Your task to perform on an android device: Open settings on Google Maps Image 0: 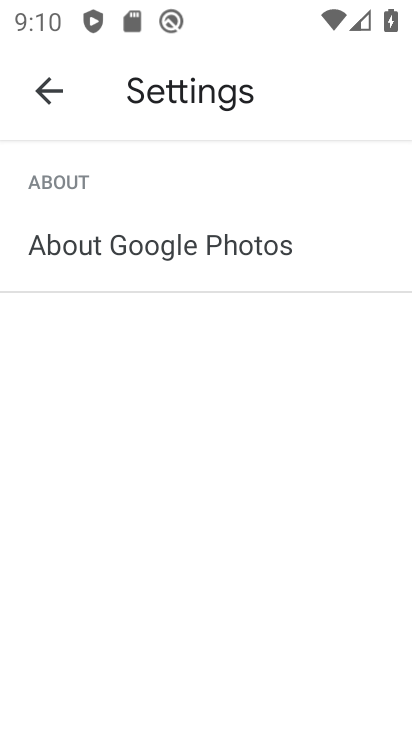
Step 0: press home button
Your task to perform on an android device: Open settings on Google Maps Image 1: 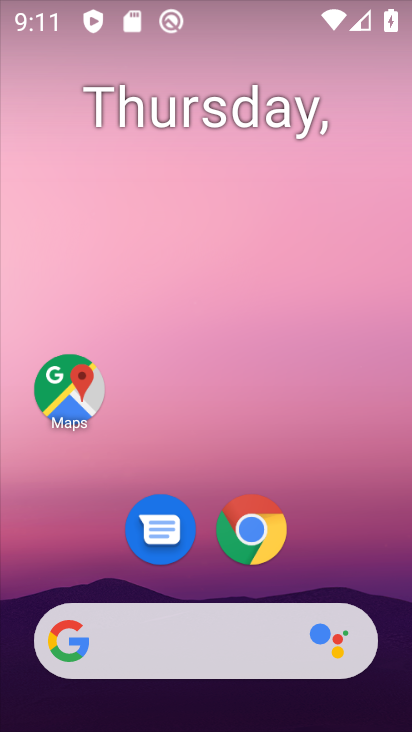
Step 1: click (66, 389)
Your task to perform on an android device: Open settings on Google Maps Image 2: 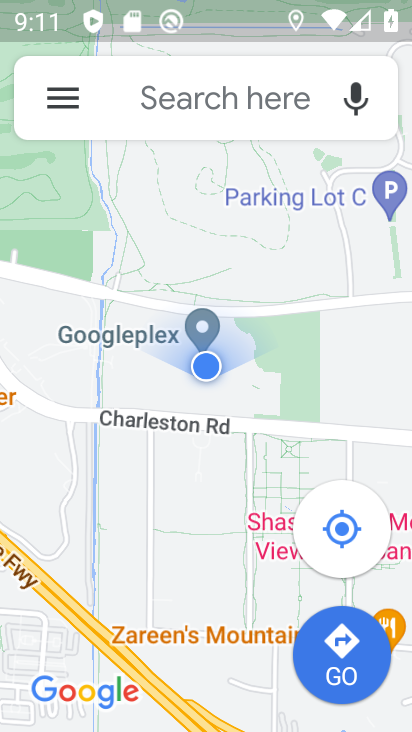
Step 2: click (68, 99)
Your task to perform on an android device: Open settings on Google Maps Image 3: 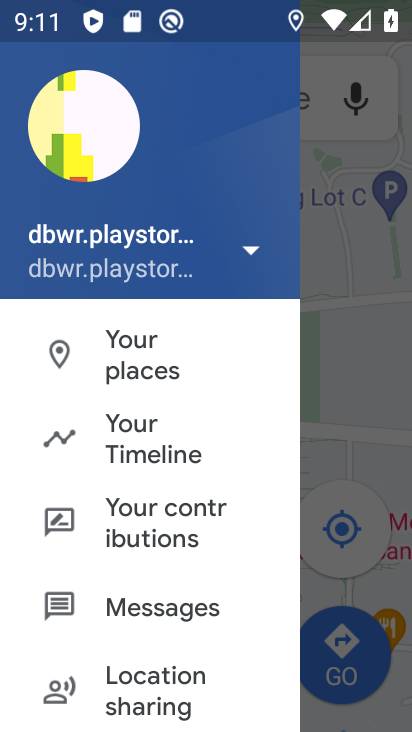
Step 3: drag from (136, 575) to (197, 482)
Your task to perform on an android device: Open settings on Google Maps Image 4: 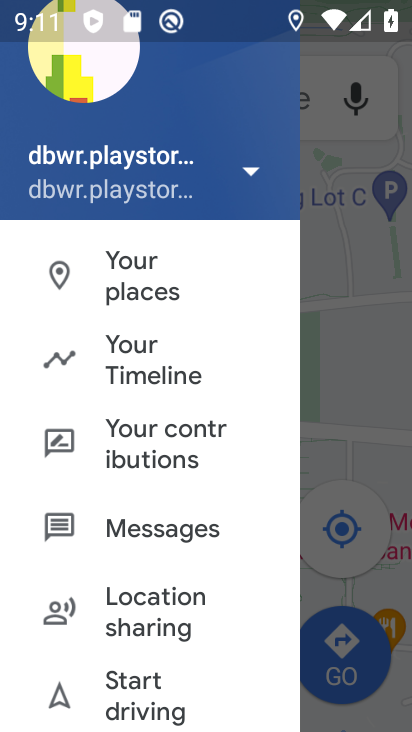
Step 4: drag from (128, 560) to (186, 476)
Your task to perform on an android device: Open settings on Google Maps Image 5: 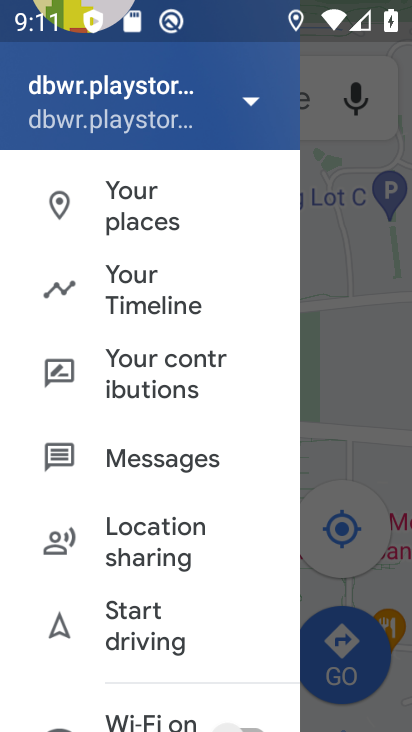
Step 5: drag from (127, 577) to (181, 490)
Your task to perform on an android device: Open settings on Google Maps Image 6: 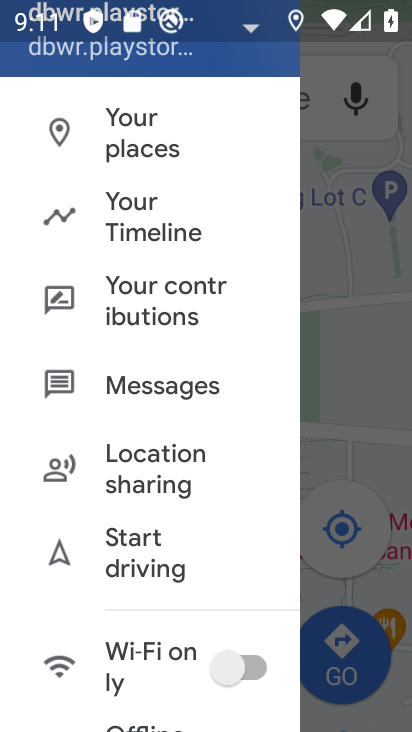
Step 6: drag from (123, 510) to (181, 434)
Your task to perform on an android device: Open settings on Google Maps Image 7: 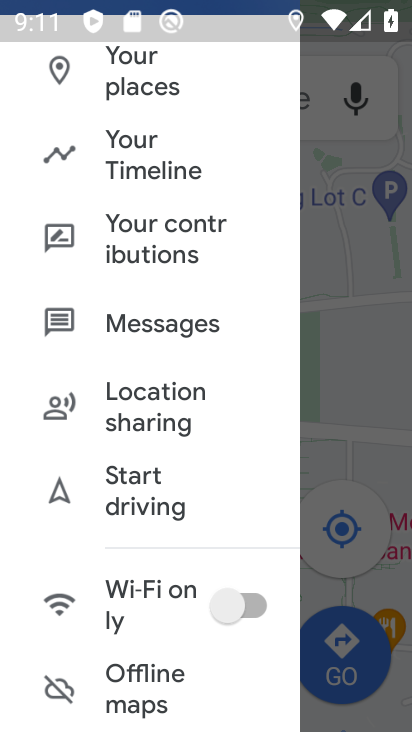
Step 7: drag from (128, 509) to (189, 439)
Your task to perform on an android device: Open settings on Google Maps Image 8: 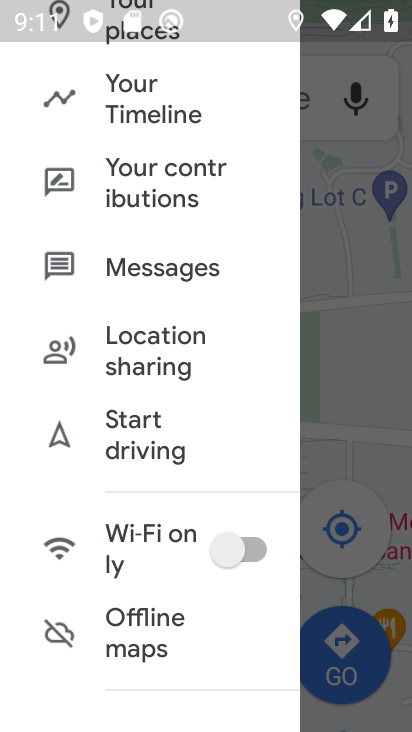
Step 8: drag from (95, 592) to (163, 495)
Your task to perform on an android device: Open settings on Google Maps Image 9: 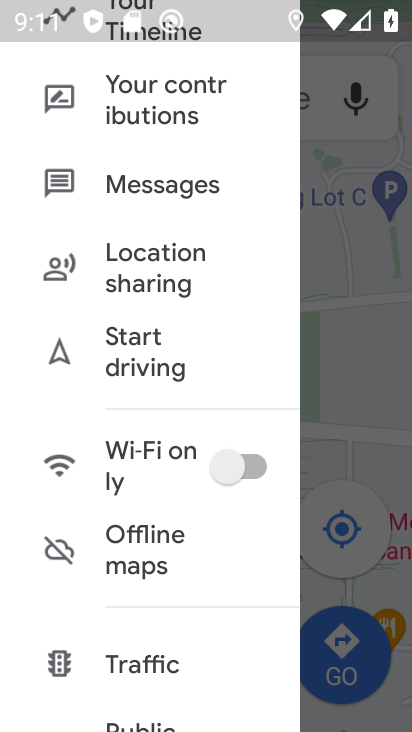
Step 9: drag from (94, 516) to (159, 401)
Your task to perform on an android device: Open settings on Google Maps Image 10: 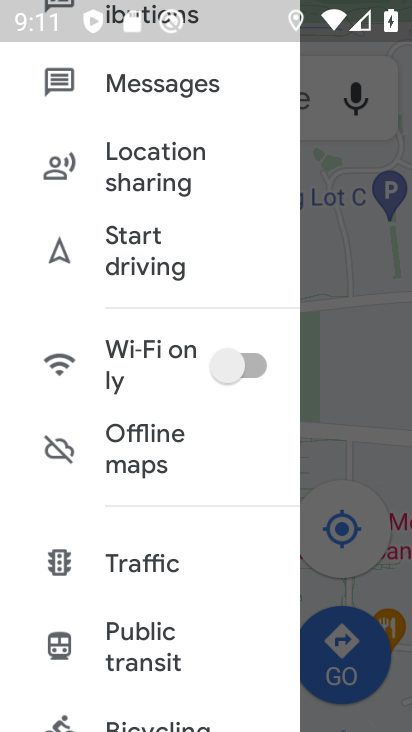
Step 10: drag from (97, 526) to (160, 445)
Your task to perform on an android device: Open settings on Google Maps Image 11: 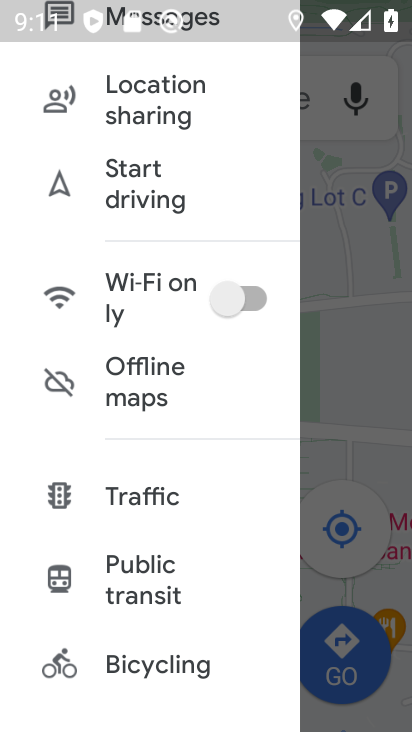
Step 11: drag from (73, 538) to (149, 450)
Your task to perform on an android device: Open settings on Google Maps Image 12: 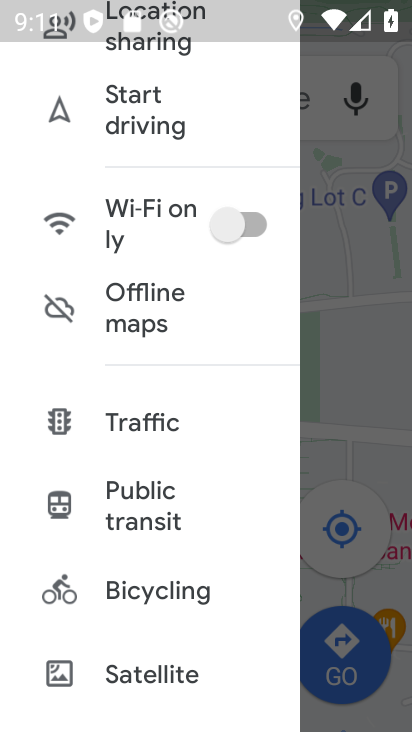
Step 12: drag from (80, 464) to (127, 396)
Your task to perform on an android device: Open settings on Google Maps Image 13: 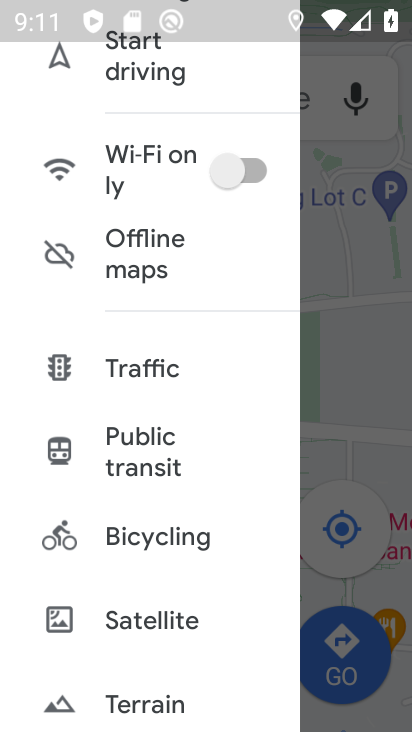
Step 13: drag from (84, 492) to (137, 405)
Your task to perform on an android device: Open settings on Google Maps Image 14: 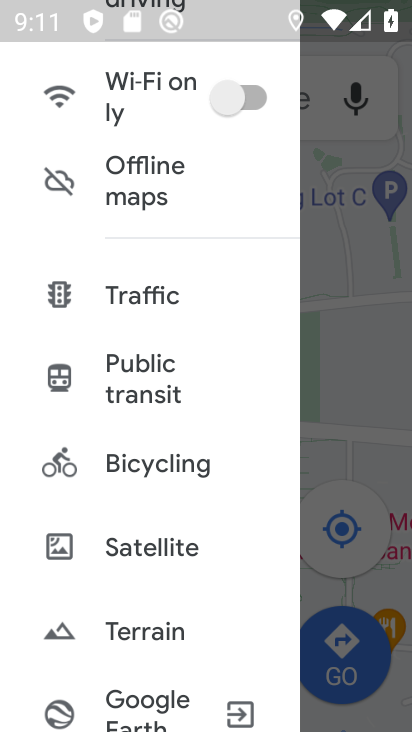
Step 14: drag from (85, 498) to (152, 405)
Your task to perform on an android device: Open settings on Google Maps Image 15: 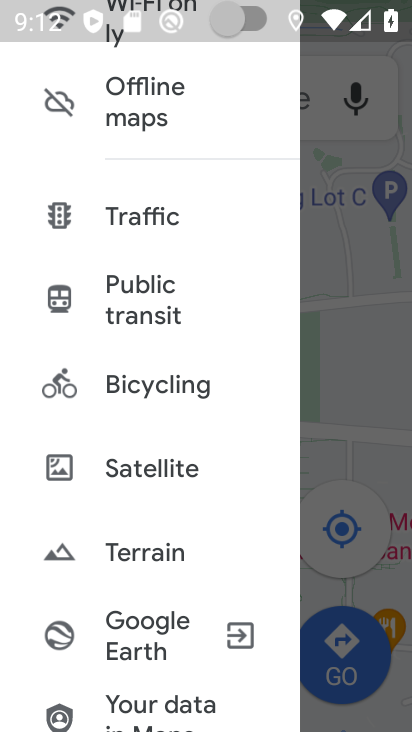
Step 15: drag from (67, 517) to (138, 425)
Your task to perform on an android device: Open settings on Google Maps Image 16: 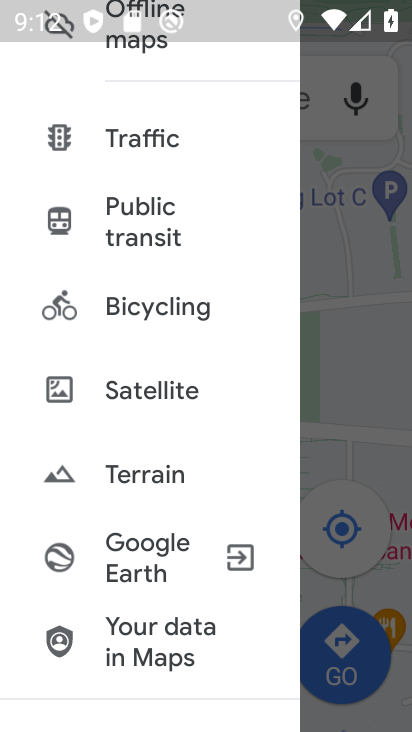
Step 16: drag from (69, 508) to (142, 418)
Your task to perform on an android device: Open settings on Google Maps Image 17: 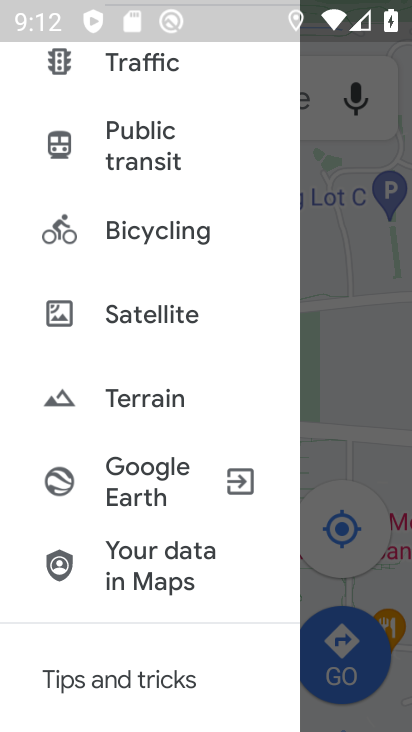
Step 17: drag from (72, 518) to (138, 428)
Your task to perform on an android device: Open settings on Google Maps Image 18: 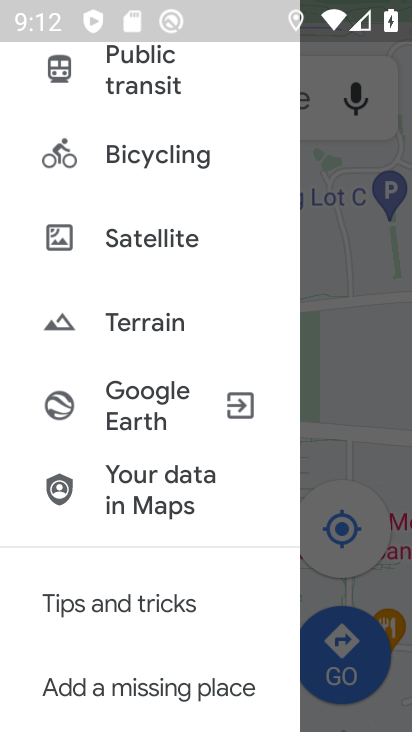
Step 18: drag from (71, 451) to (94, 365)
Your task to perform on an android device: Open settings on Google Maps Image 19: 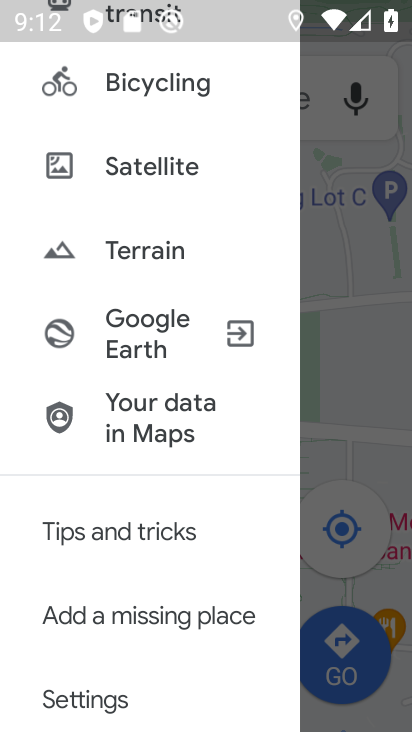
Step 19: drag from (76, 491) to (108, 391)
Your task to perform on an android device: Open settings on Google Maps Image 20: 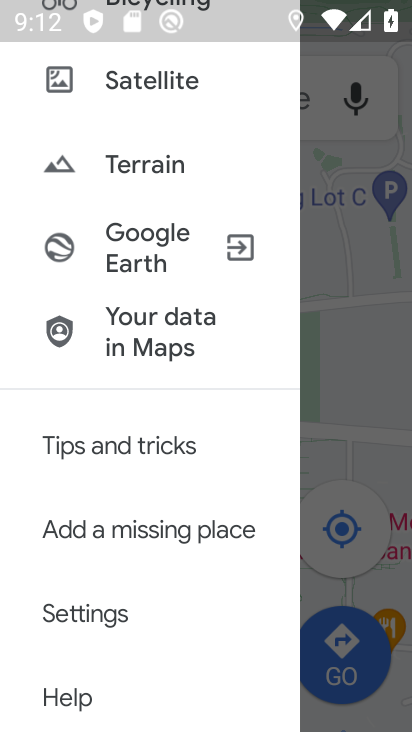
Step 20: click (87, 614)
Your task to perform on an android device: Open settings on Google Maps Image 21: 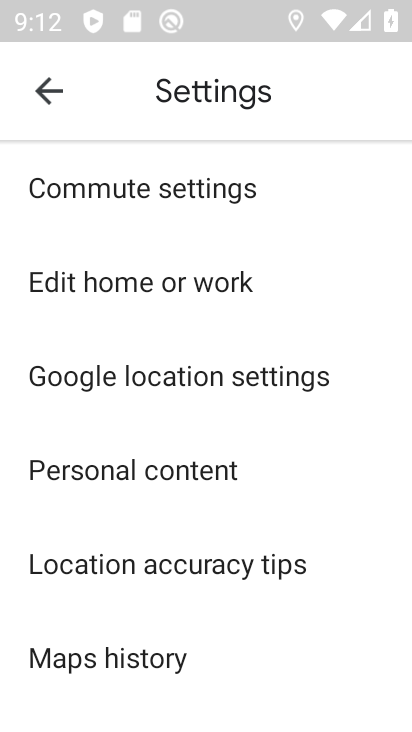
Step 21: task complete